Your task to perform on an android device: allow cookies in the chrome app Image 0: 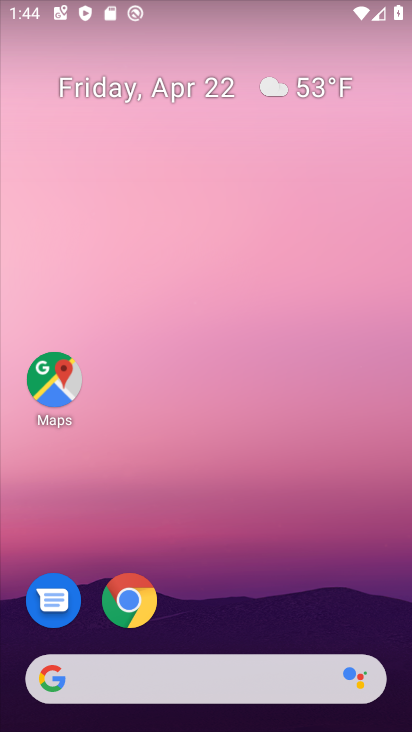
Step 0: click (124, 597)
Your task to perform on an android device: allow cookies in the chrome app Image 1: 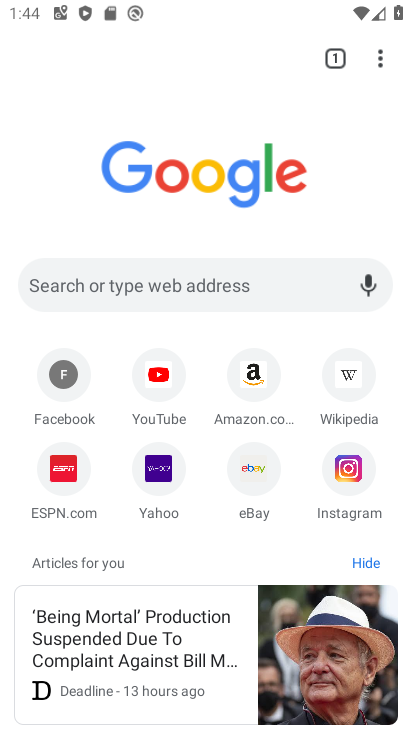
Step 1: drag from (382, 54) to (234, 551)
Your task to perform on an android device: allow cookies in the chrome app Image 2: 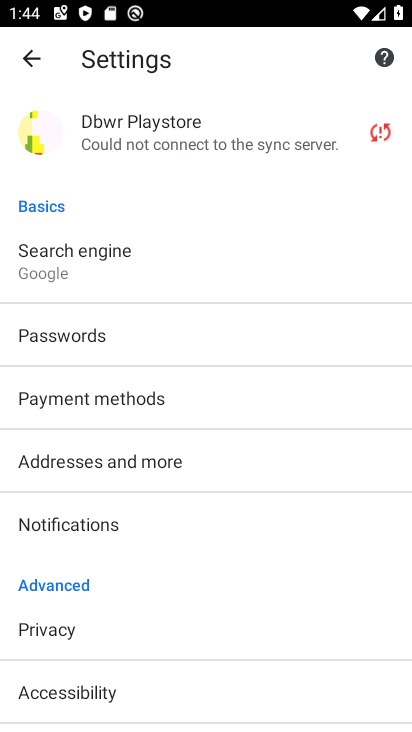
Step 2: drag from (152, 687) to (160, 341)
Your task to perform on an android device: allow cookies in the chrome app Image 3: 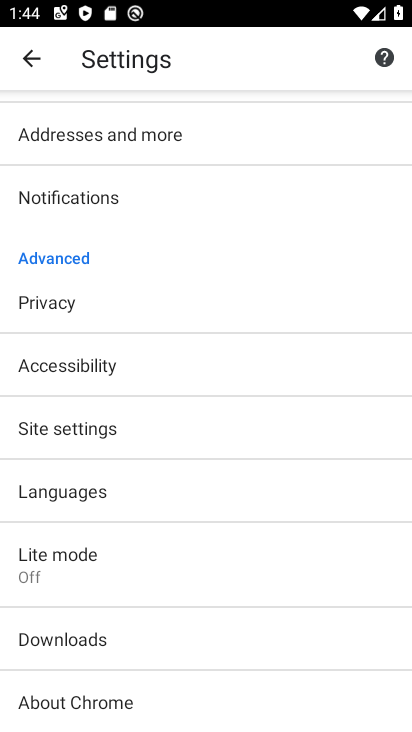
Step 3: click (73, 424)
Your task to perform on an android device: allow cookies in the chrome app Image 4: 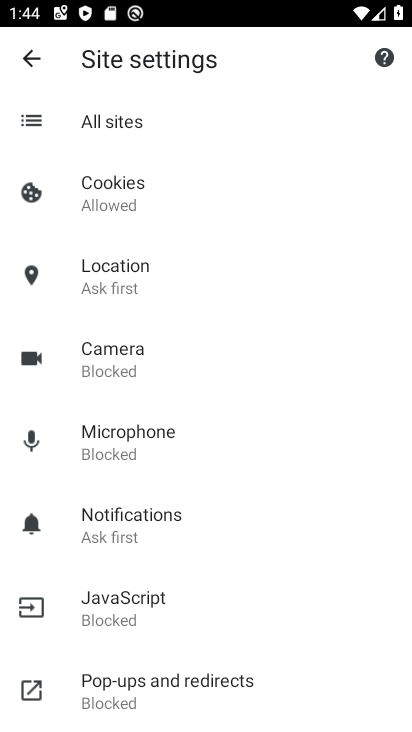
Step 4: click (110, 198)
Your task to perform on an android device: allow cookies in the chrome app Image 5: 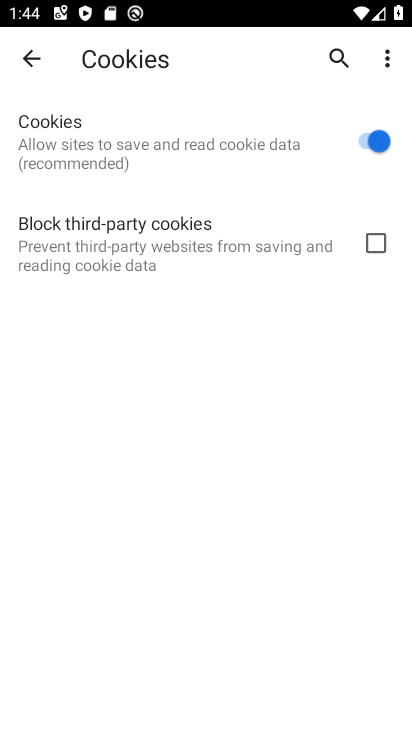
Step 5: task complete